Your task to perform on an android device: toggle translation in the chrome app Image 0: 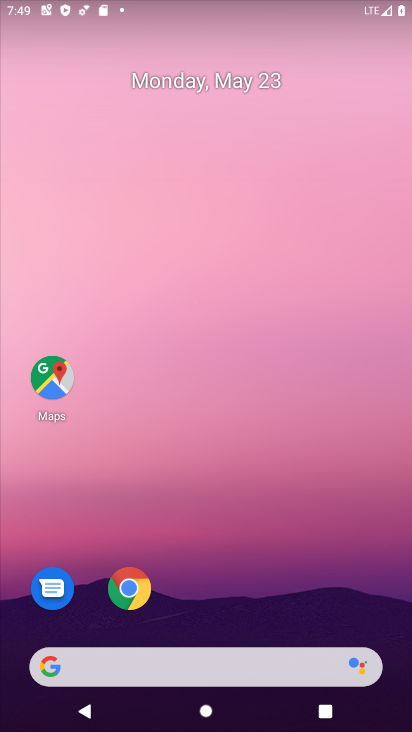
Step 0: click (141, 582)
Your task to perform on an android device: toggle translation in the chrome app Image 1: 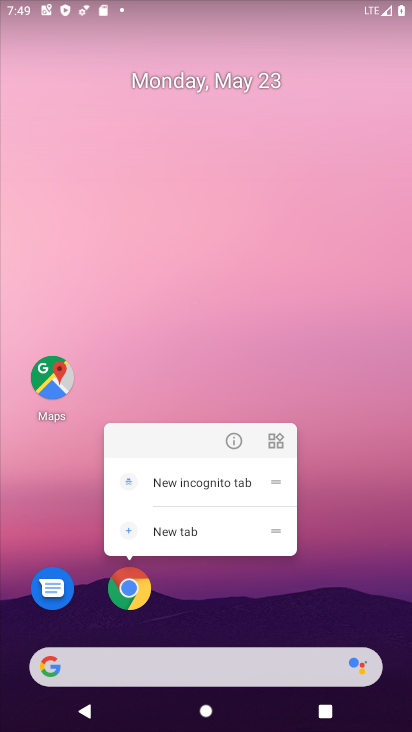
Step 1: click (136, 581)
Your task to perform on an android device: toggle translation in the chrome app Image 2: 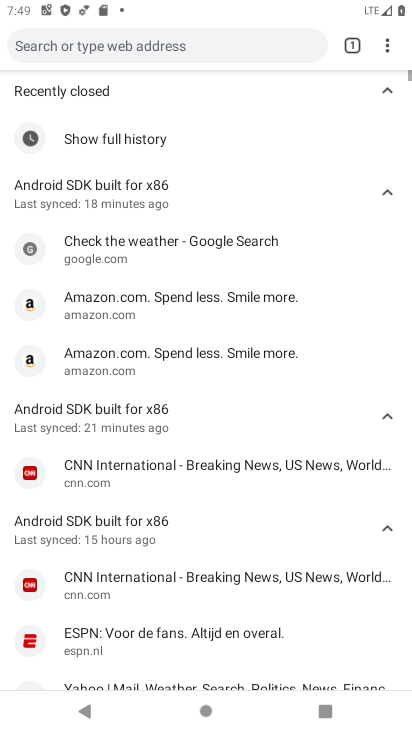
Step 2: click (387, 45)
Your task to perform on an android device: toggle translation in the chrome app Image 3: 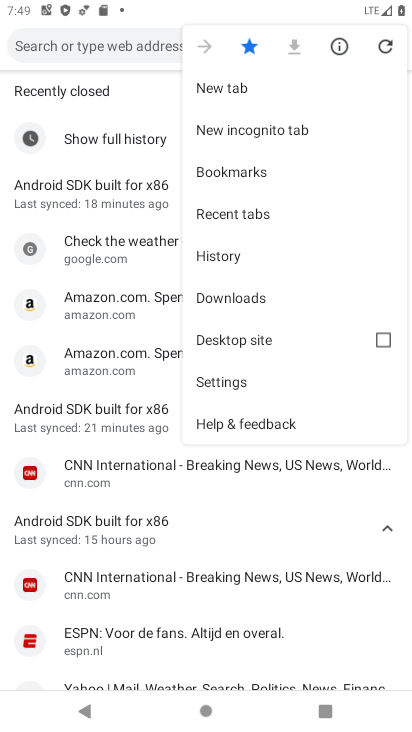
Step 3: click (230, 380)
Your task to perform on an android device: toggle translation in the chrome app Image 4: 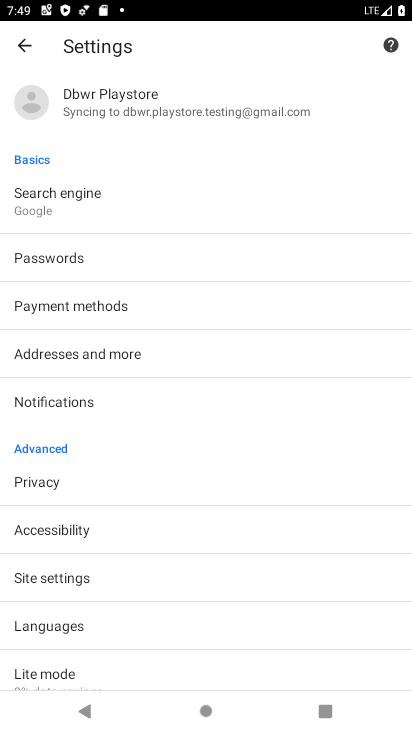
Step 4: click (77, 631)
Your task to perform on an android device: toggle translation in the chrome app Image 5: 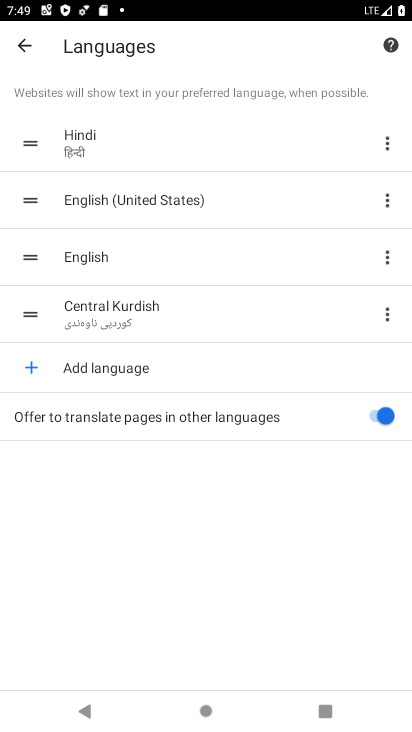
Step 5: click (367, 414)
Your task to perform on an android device: toggle translation in the chrome app Image 6: 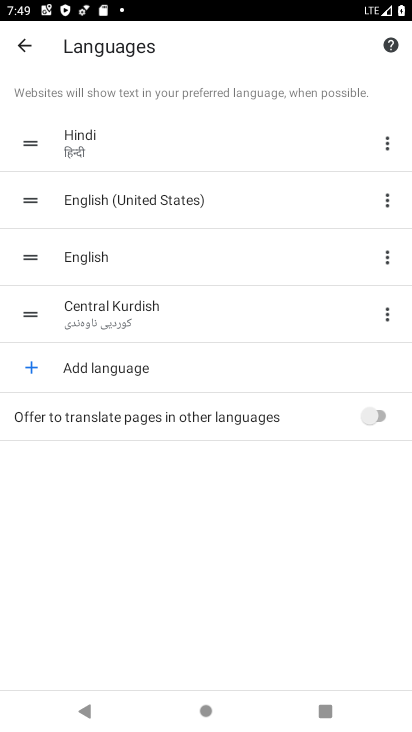
Step 6: task complete